Your task to perform on an android device: change your default location settings in chrome Image 0: 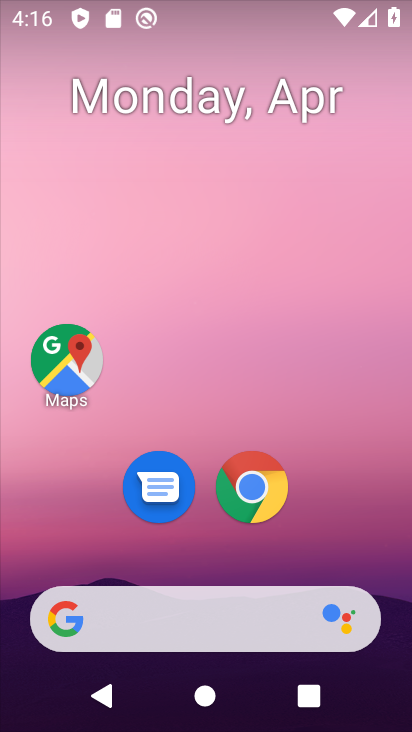
Step 0: drag from (371, 547) to (403, 61)
Your task to perform on an android device: change your default location settings in chrome Image 1: 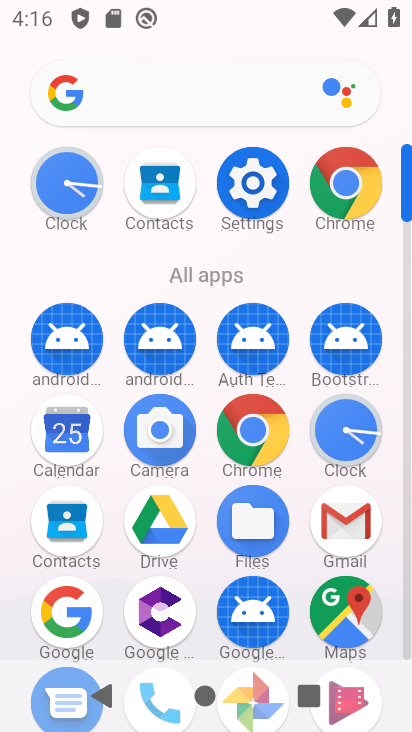
Step 1: click (350, 218)
Your task to perform on an android device: change your default location settings in chrome Image 2: 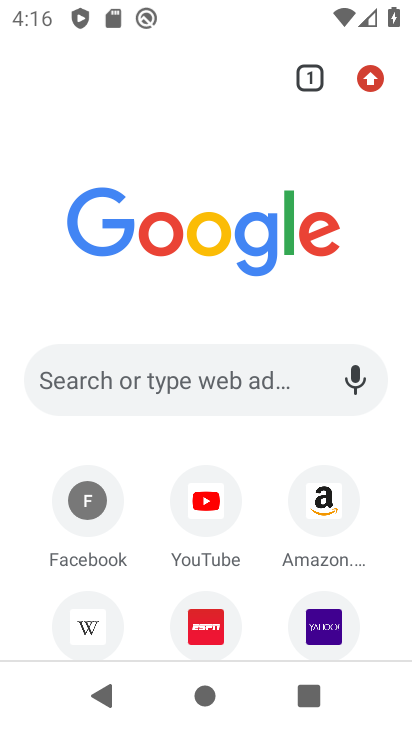
Step 2: click (369, 83)
Your task to perform on an android device: change your default location settings in chrome Image 3: 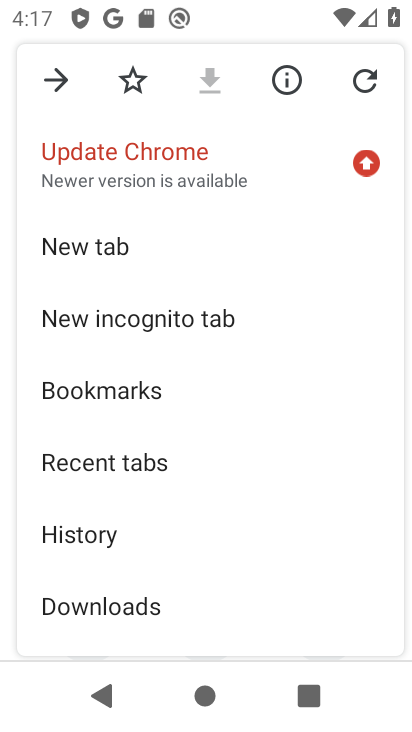
Step 3: drag from (313, 553) to (316, 334)
Your task to perform on an android device: change your default location settings in chrome Image 4: 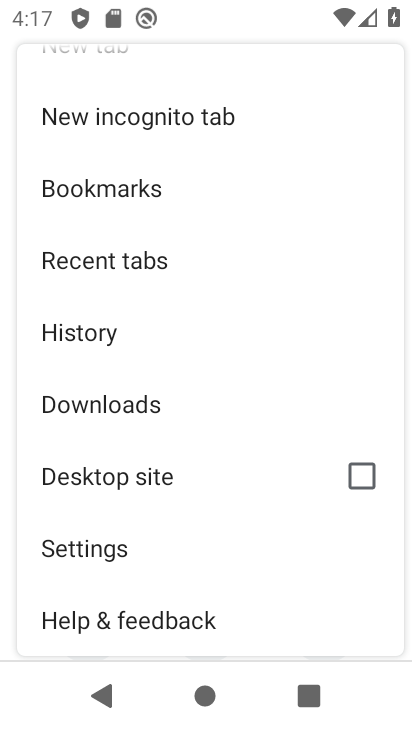
Step 4: drag from (256, 513) to (264, 392)
Your task to perform on an android device: change your default location settings in chrome Image 5: 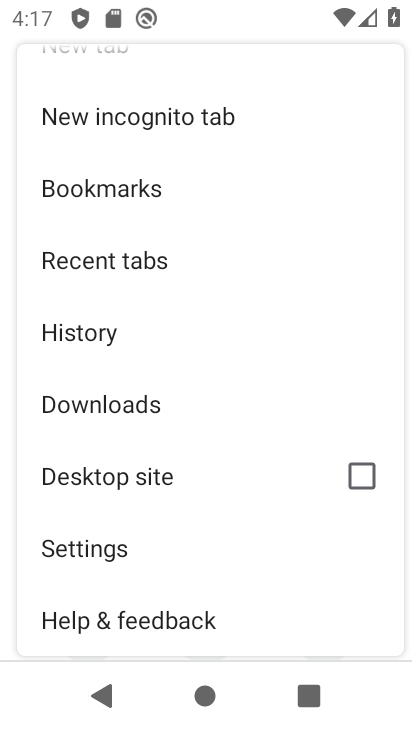
Step 5: click (134, 551)
Your task to perform on an android device: change your default location settings in chrome Image 6: 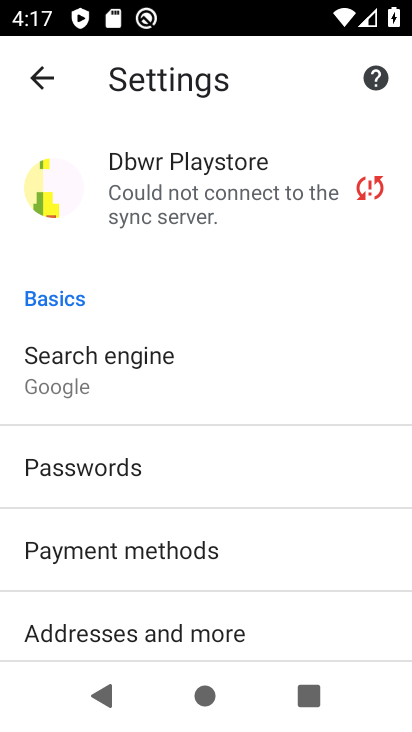
Step 6: drag from (324, 584) to (334, 386)
Your task to perform on an android device: change your default location settings in chrome Image 7: 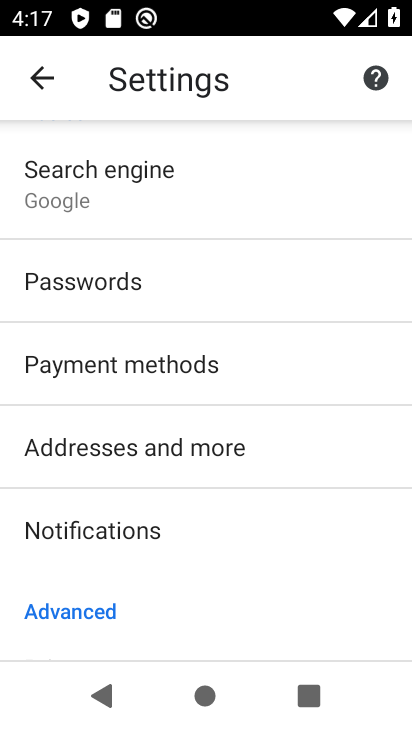
Step 7: drag from (303, 604) to (325, 397)
Your task to perform on an android device: change your default location settings in chrome Image 8: 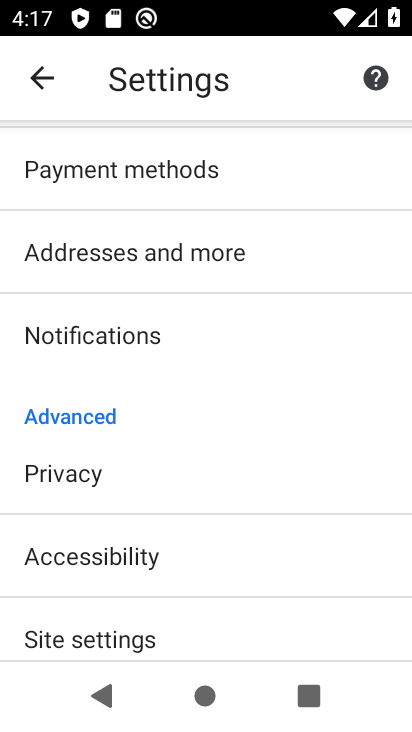
Step 8: drag from (310, 578) to (317, 432)
Your task to perform on an android device: change your default location settings in chrome Image 9: 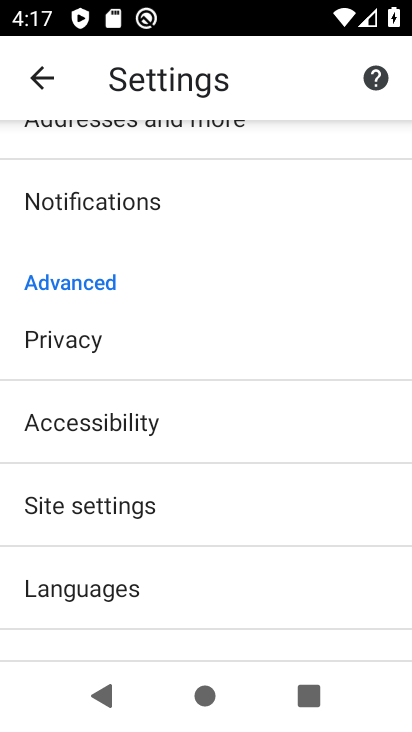
Step 9: drag from (329, 625) to (331, 369)
Your task to perform on an android device: change your default location settings in chrome Image 10: 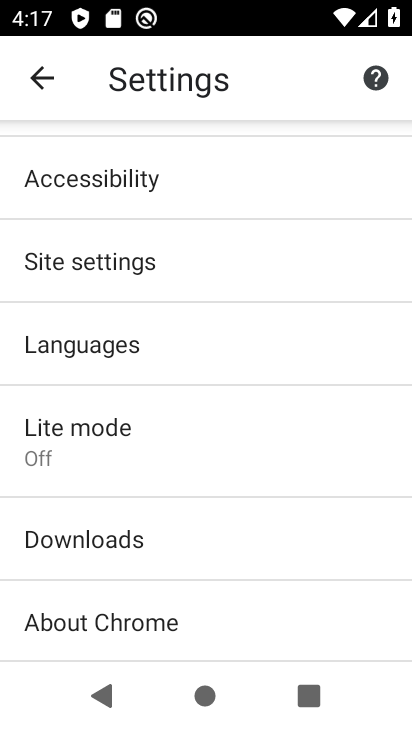
Step 10: drag from (286, 589) to (301, 368)
Your task to perform on an android device: change your default location settings in chrome Image 11: 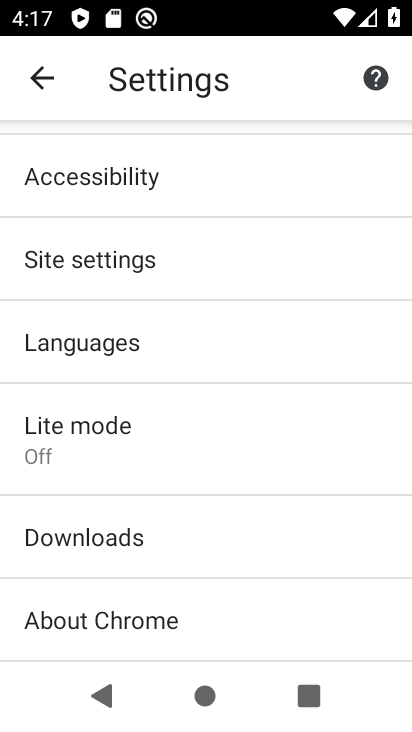
Step 11: drag from (293, 268) to (296, 442)
Your task to perform on an android device: change your default location settings in chrome Image 12: 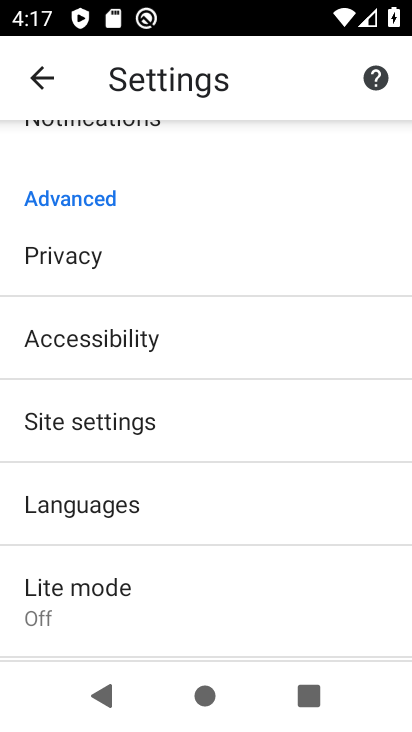
Step 12: click (272, 443)
Your task to perform on an android device: change your default location settings in chrome Image 13: 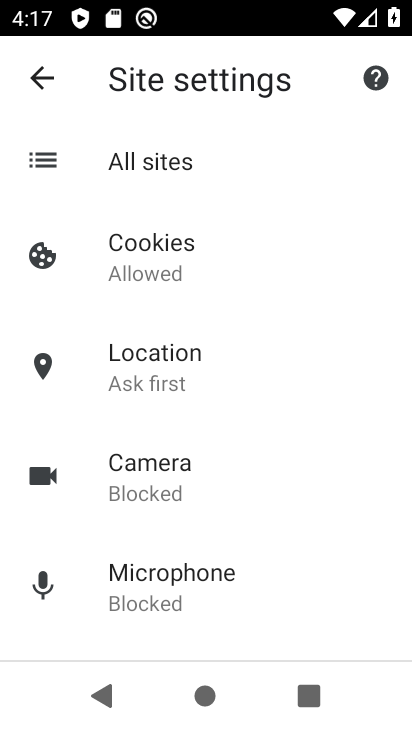
Step 13: click (173, 377)
Your task to perform on an android device: change your default location settings in chrome Image 14: 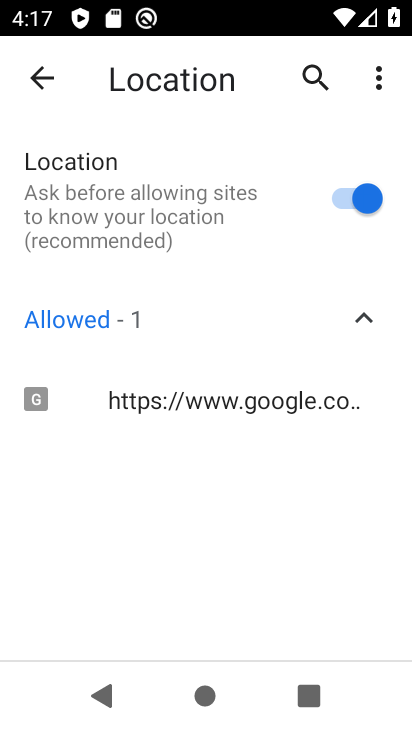
Step 14: click (341, 201)
Your task to perform on an android device: change your default location settings in chrome Image 15: 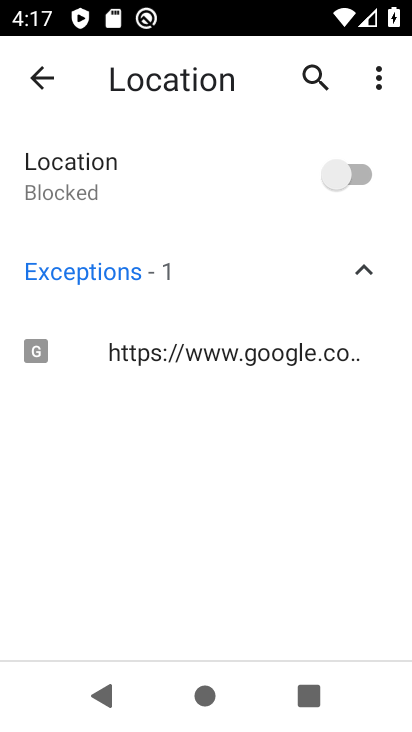
Step 15: task complete